Your task to perform on an android device: check data usage Image 0: 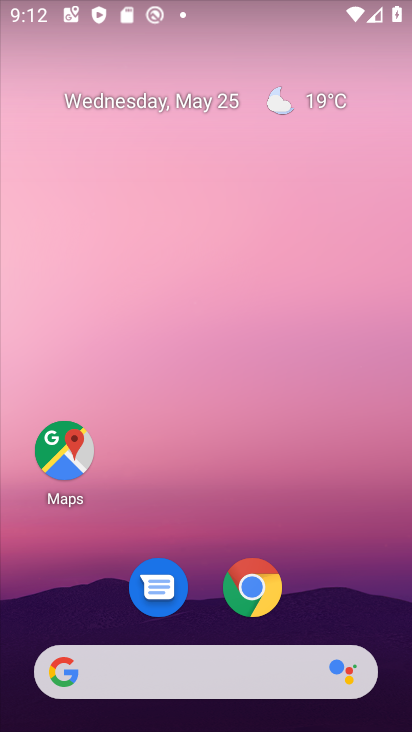
Step 0: drag from (375, 613) to (356, 56)
Your task to perform on an android device: check data usage Image 1: 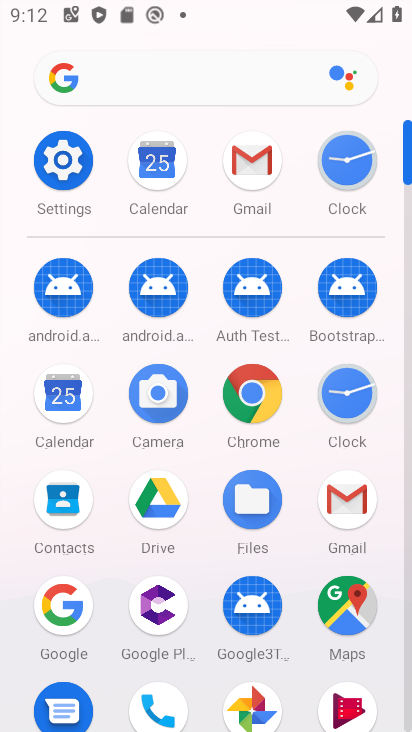
Step 1: click (408, 718)
Your task to perform on an android device: check data usage Image 2: 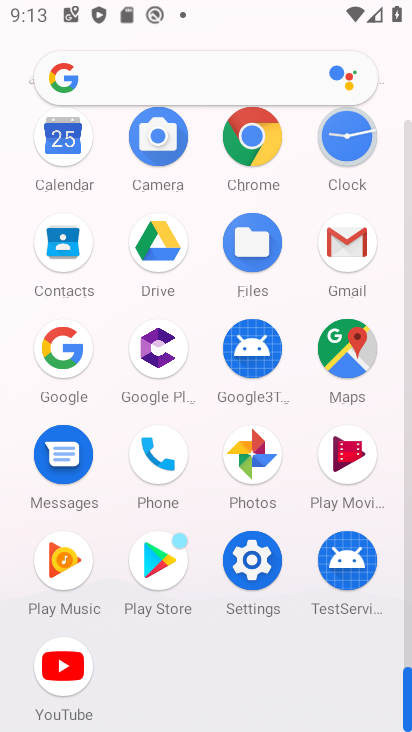
Step 2: click (252, 560)
Your task to perform on an android device: check data usage Image 3: 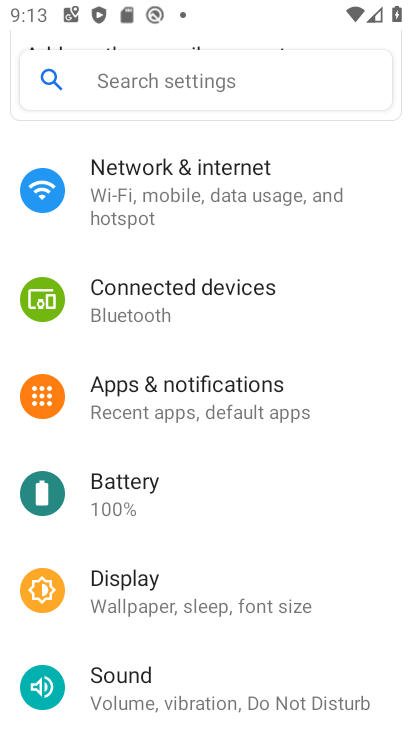
Step 3: click (174, 180)
Your task to perform on an android device: check data usage Image 4: 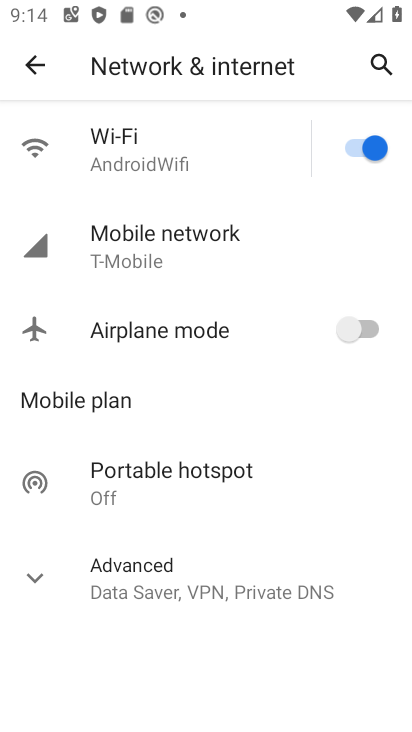
Step 4: click (149, 254)
Your task to perform on an android device: check data usage Image 5: 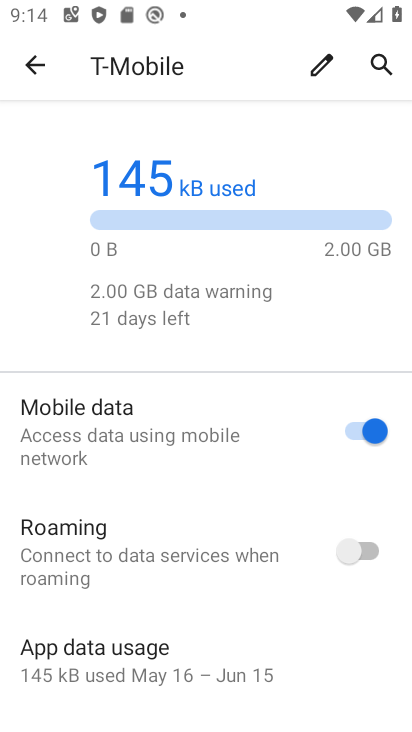
Step 5: task complete